Your task to perform on an android device: Search for razer thresher on costco, select the first entry, and add it to the cart. Image 0: 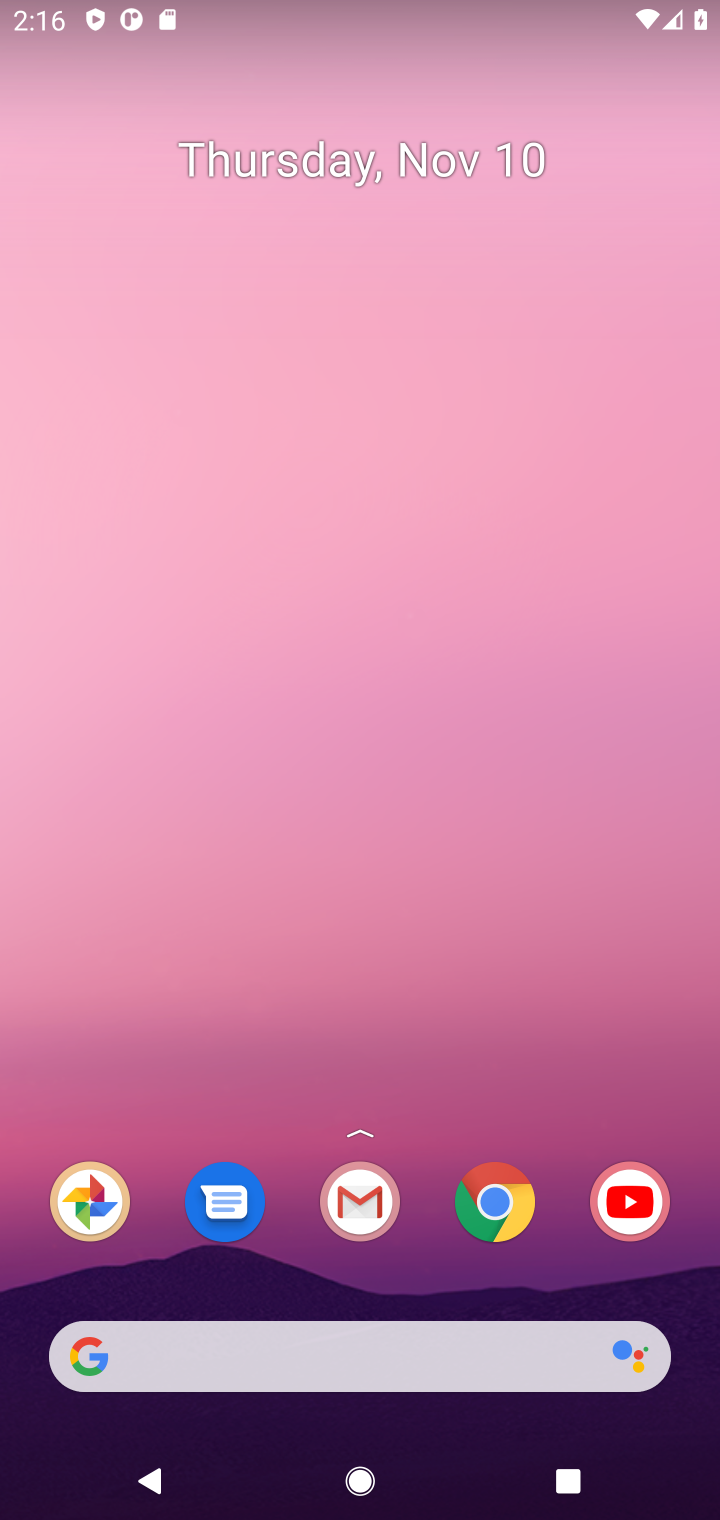
Step 0: click (490, 1219)
Your task to perform on an android device: Search for razer thresher on costco, select the first entry, and add it to the cart. Image 1: 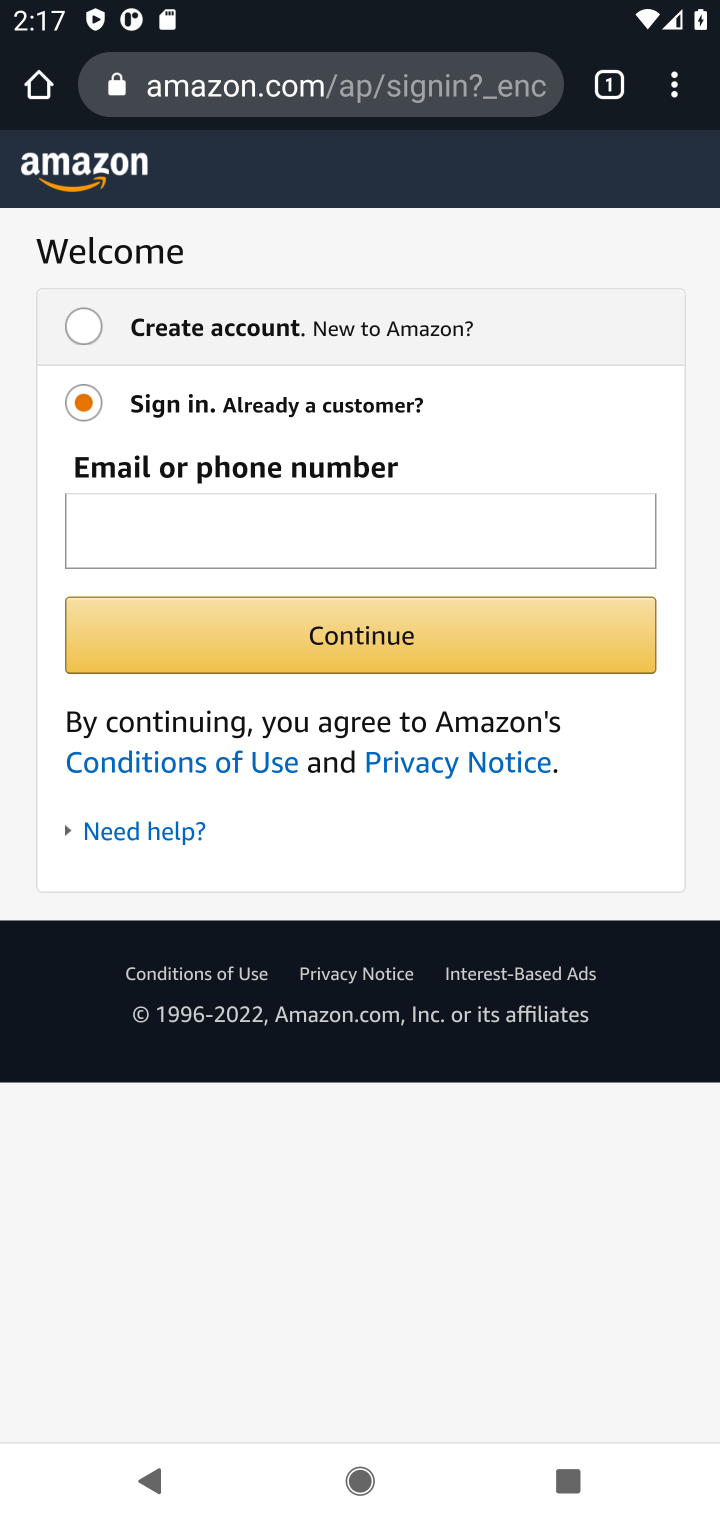
Step 1: click (389, 89)
Your task to perform on an android device: Search for razer thresher on costco, select the first entry, and add it to the cart. Image 2: 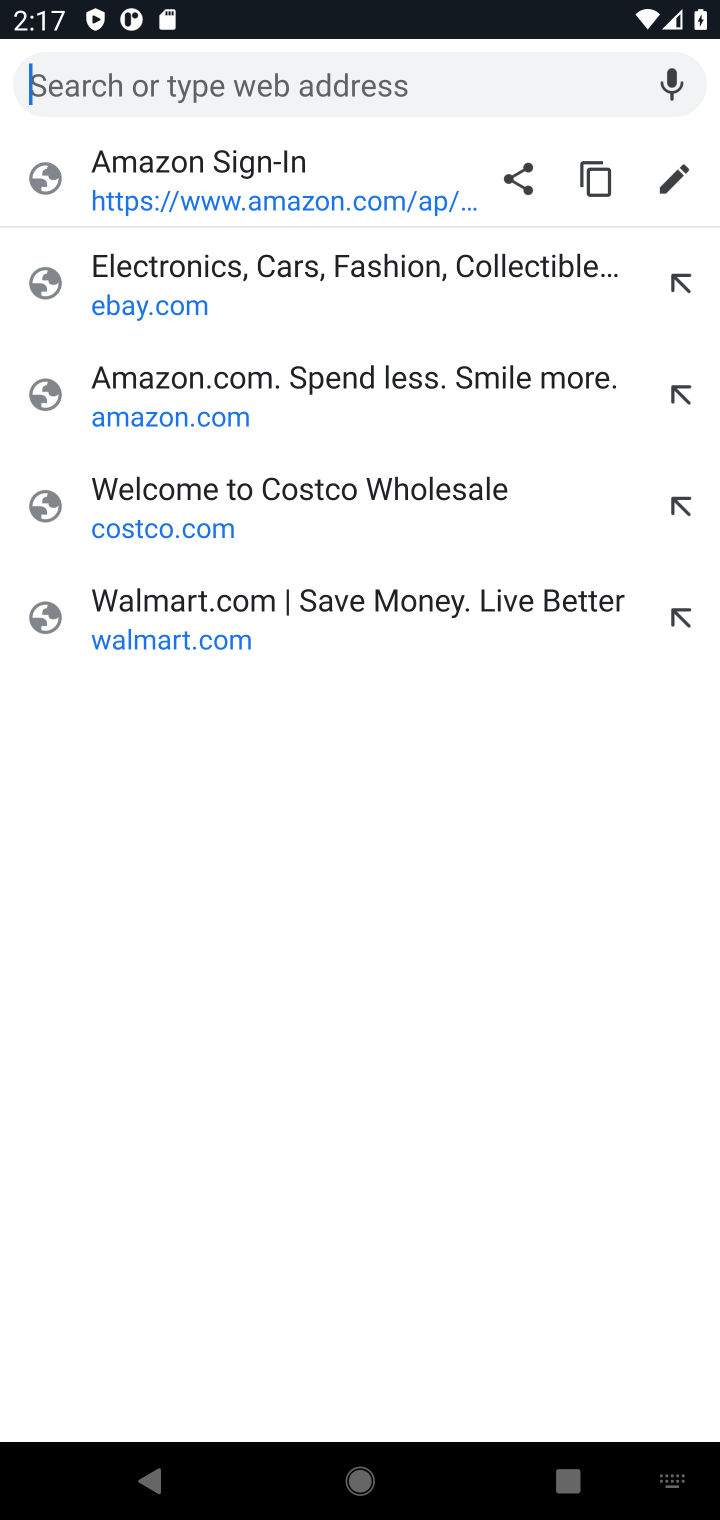
Step 2: type "costco"
Your task to perform on an android device: Search for razer thresher on costco, select the first entry, and add it to the cart. Image 3: 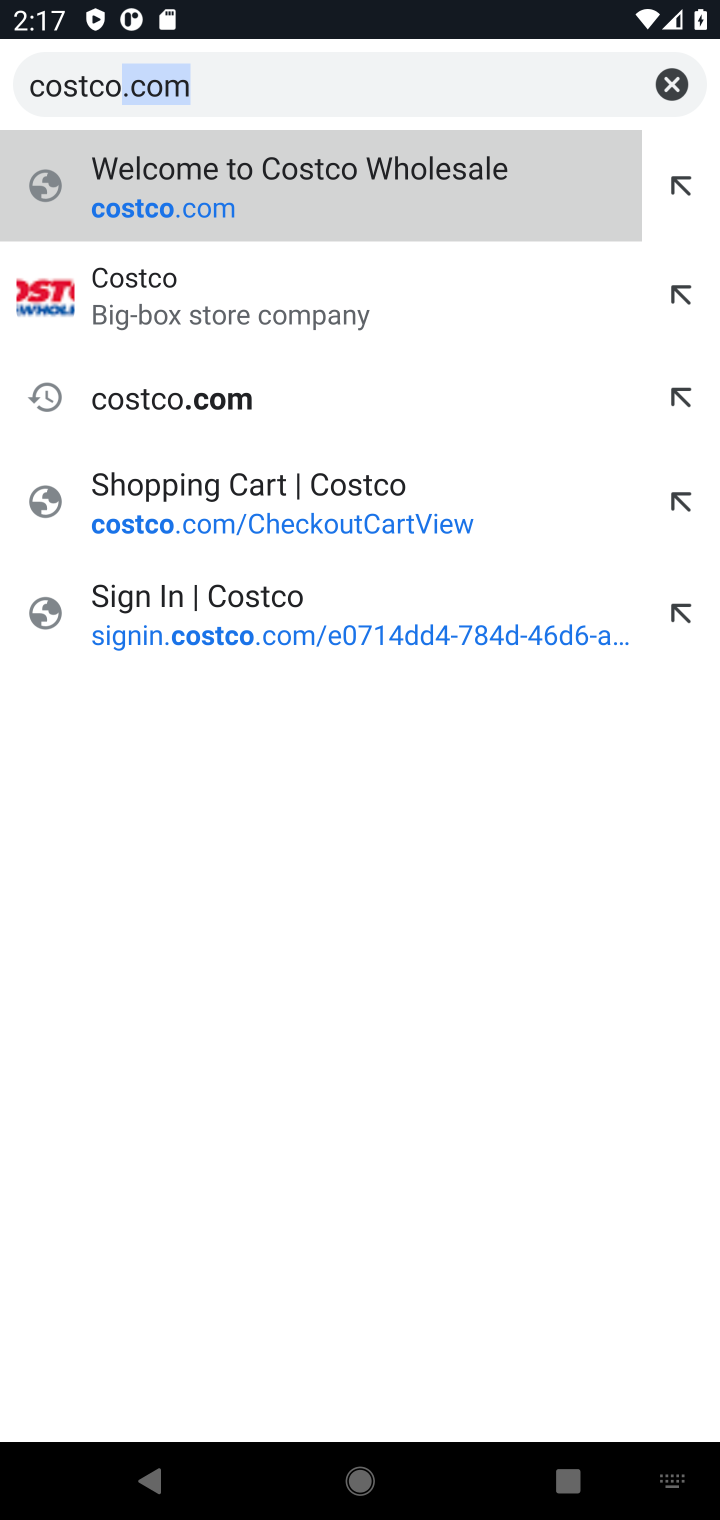
Step 3: click (225, 402)
Your task to perform on an android device: Search for razer thresher on costco, select the first entry, and add it to the cart. Image 4: 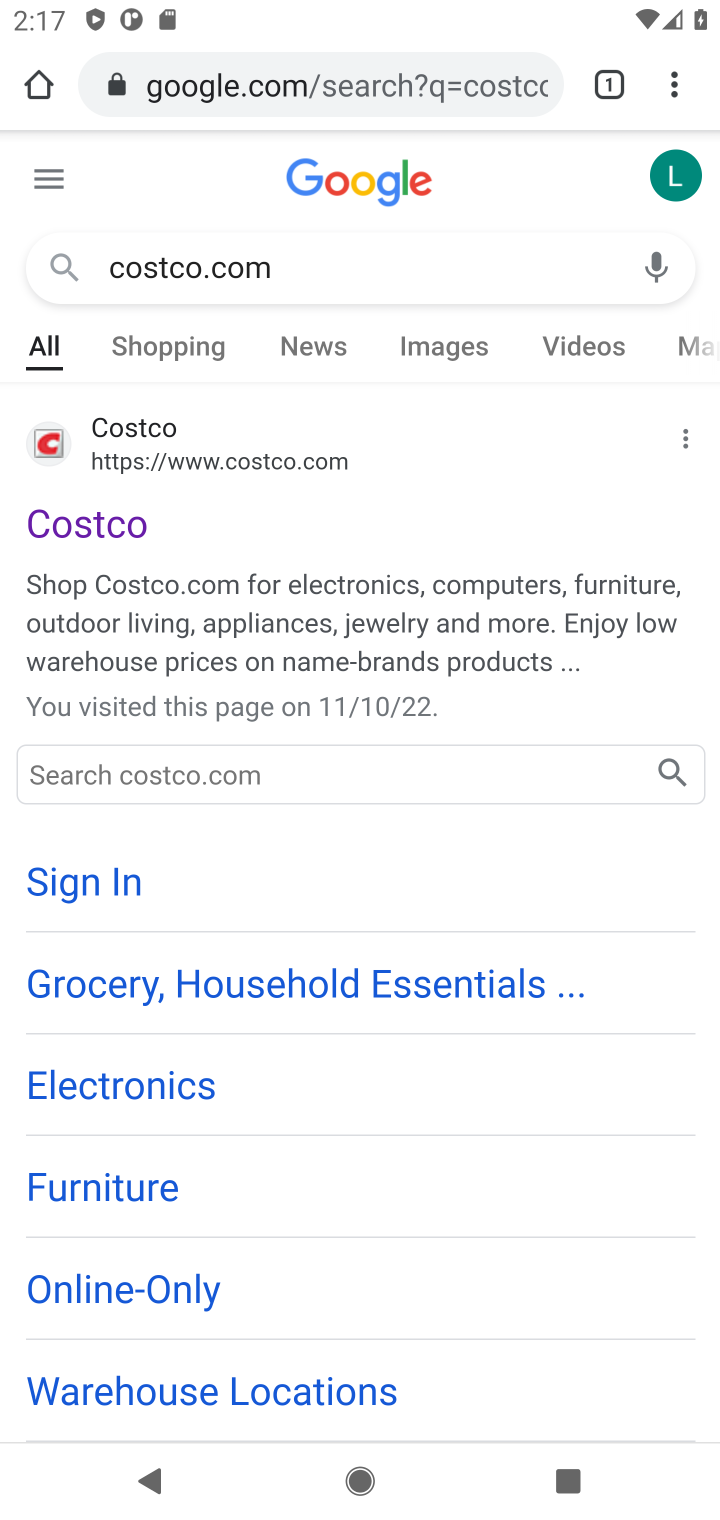
Step 4: click (188, 446)
Your task to perform on an android device: Search for razer thresher on costco, select the first entry, and add it to the cart. Image 5: 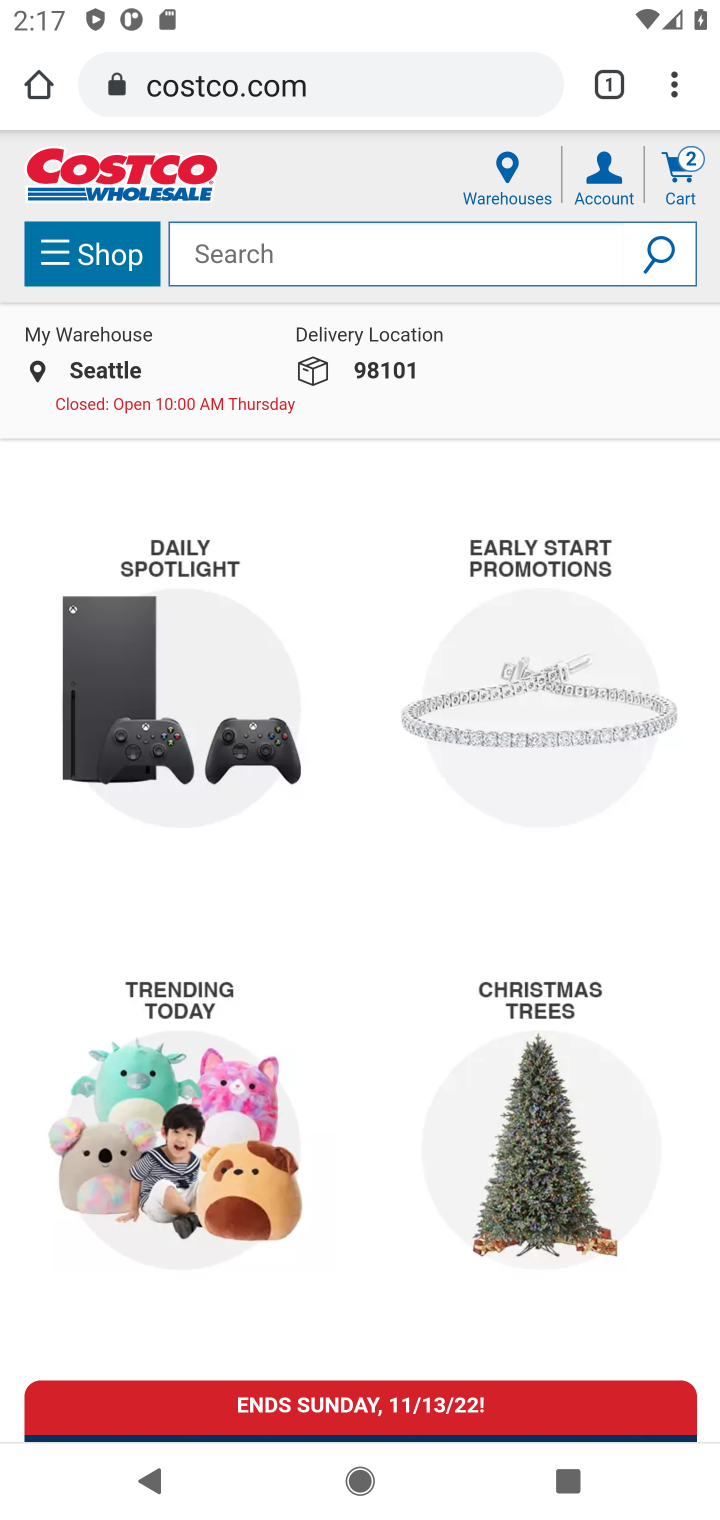
Step 5: click (621, 252)
Your task to perform on an android device: Search for razer thresher on costco, select the first entry, and add it to the cart. Image 6: 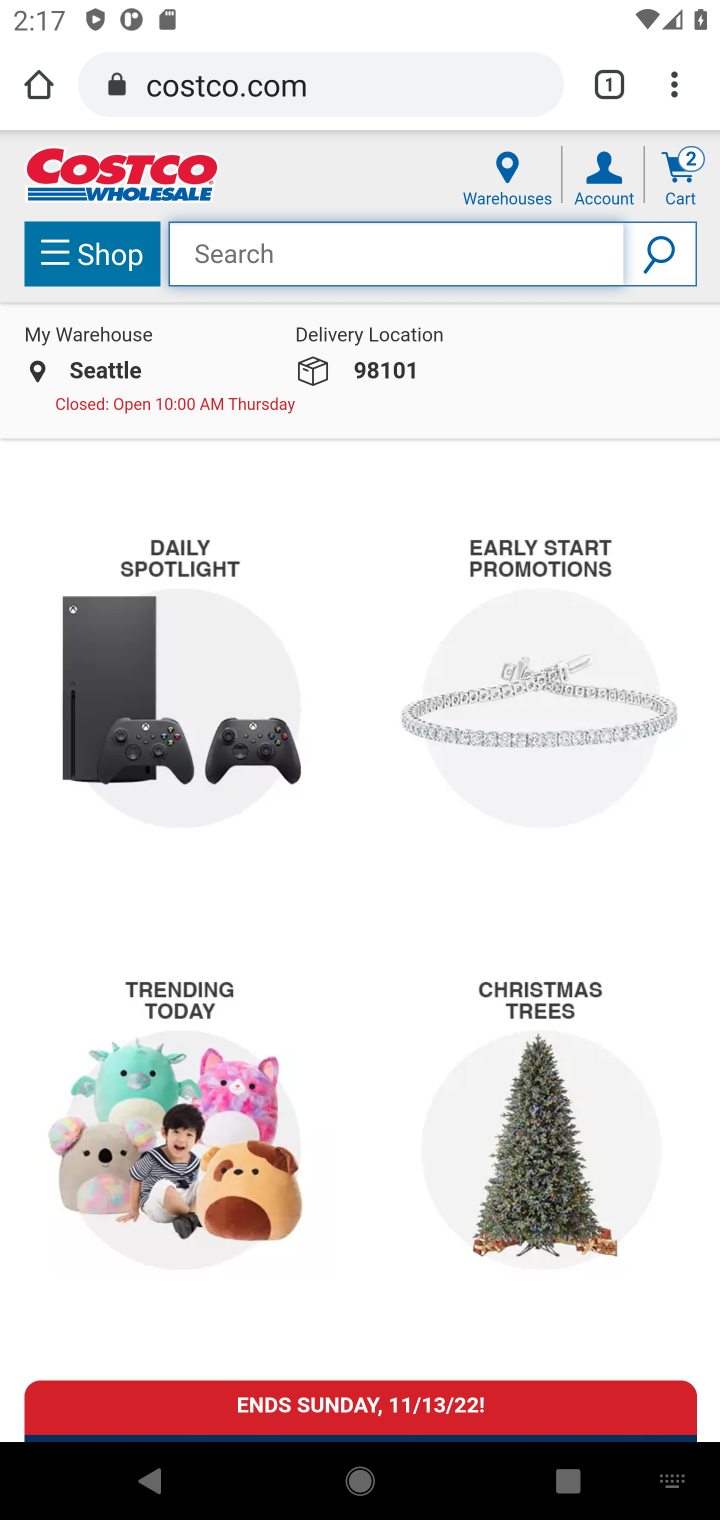
Step 6: type "razer thresher "
Your task to perform on an android device: Search for razer thresher on costco, select the first entry, and add it to the cart. Image 7: 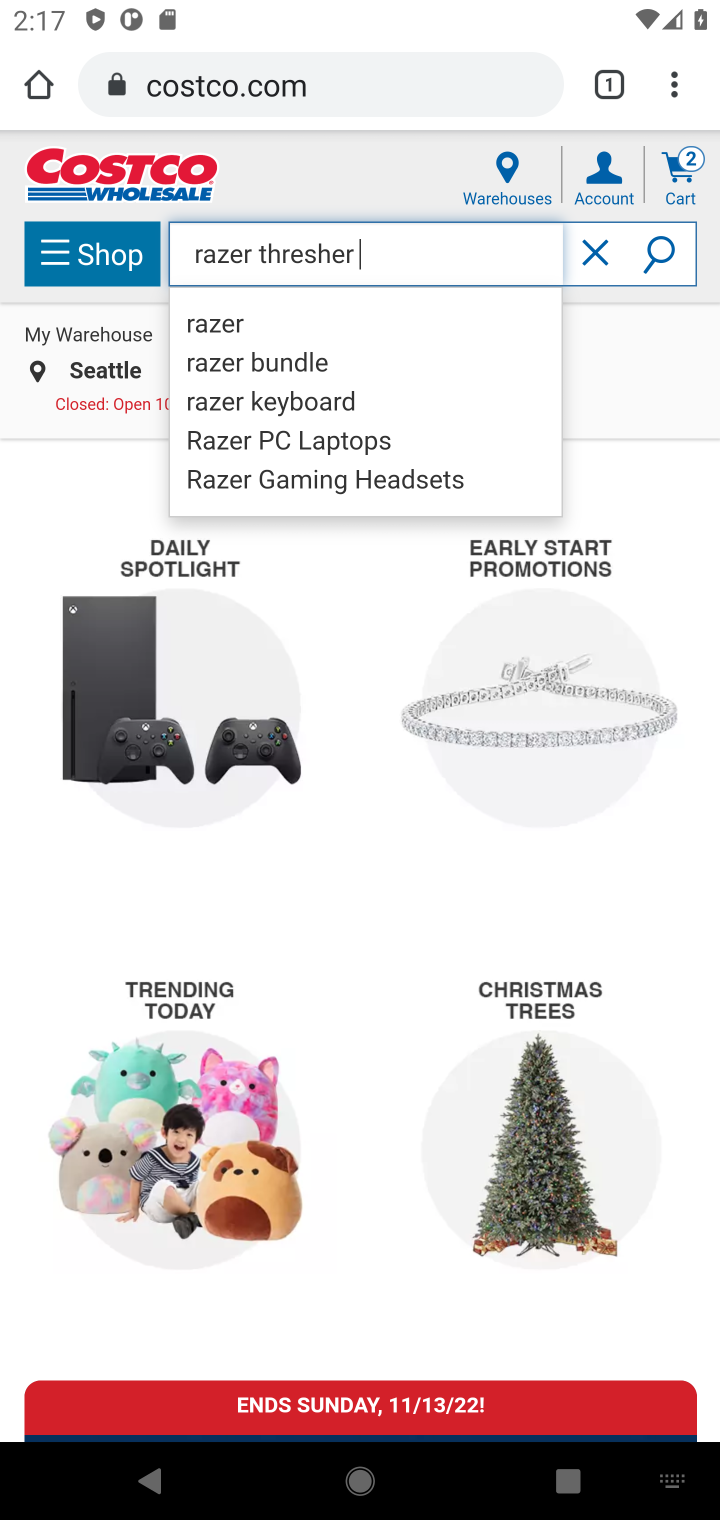
Step 7: click (636, 398)
Your task to perform on an android device: Search for razer thresher on costco, select the first entry, and add it to the cart. Image 8: 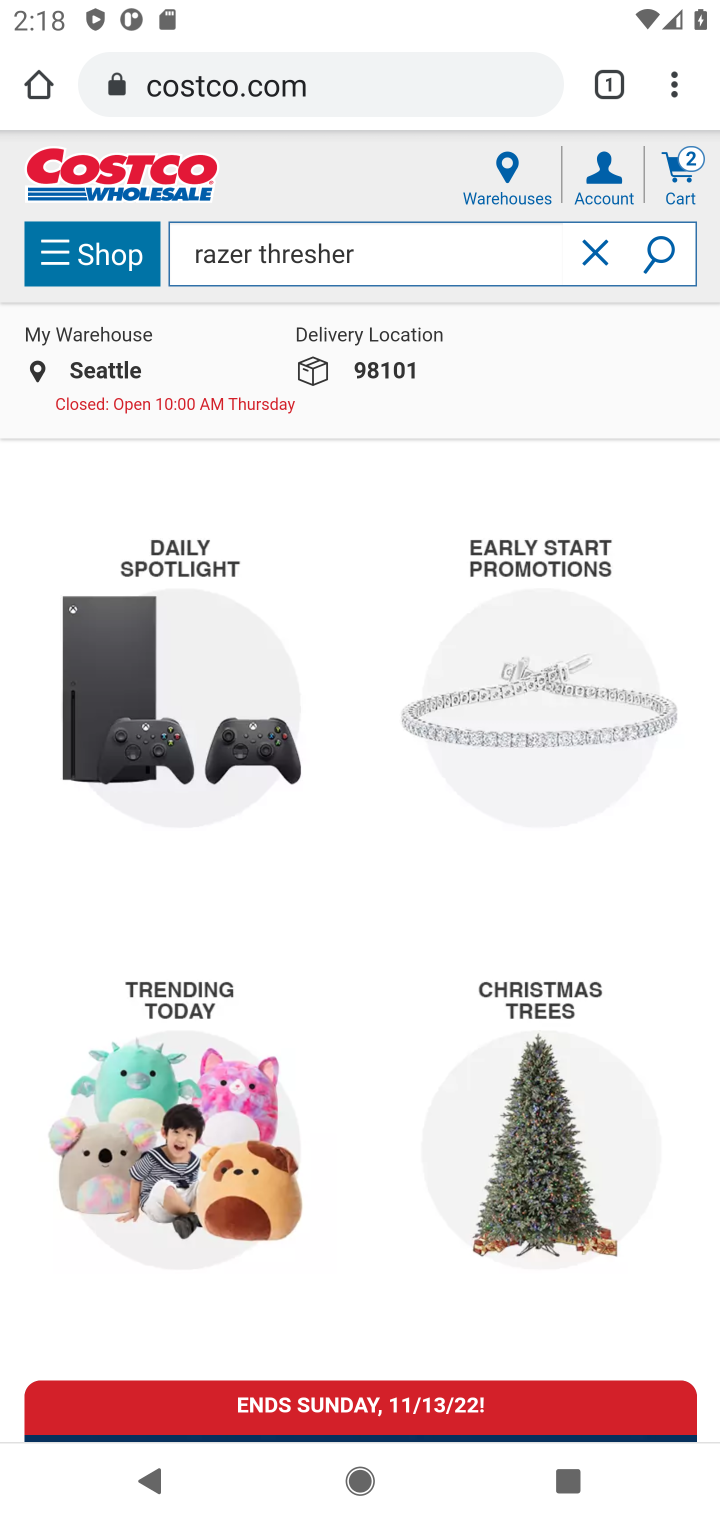
Step 8: task complete